Your task to perform on an android device: change your default location settings in chrome Image 0: 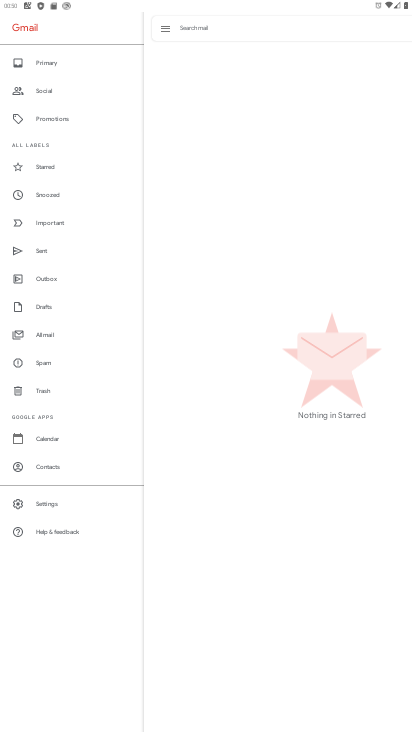
Step 0: click (63, 500)
Your task to perform on an android device: change your default location settings in chrome Image 1: 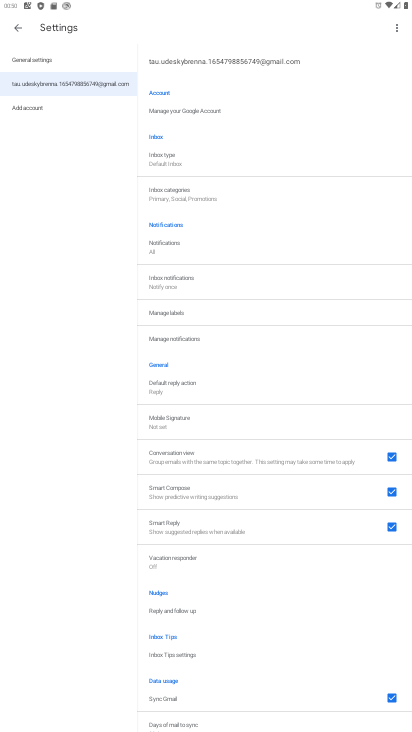
Step 1: task complete